Your task to perform on an android device: turn on wifi Image 0: 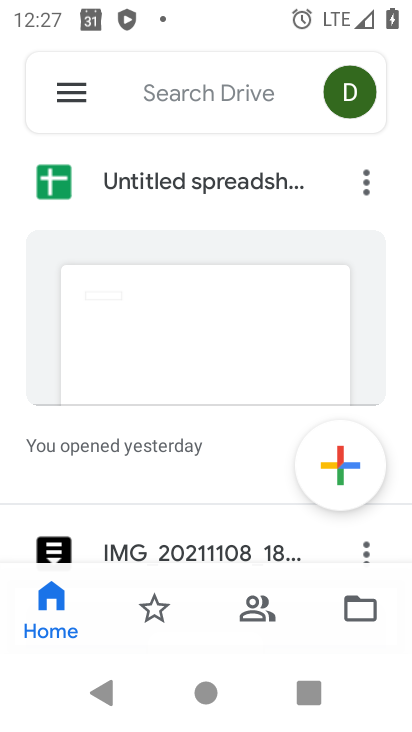
Step 0: drag from (104, 8) to (139, 517)
Your task to perform on an android device: turn on wifi Image 1: 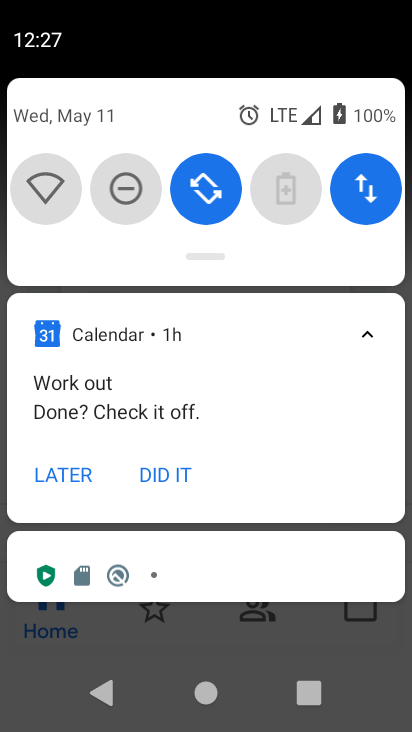
Step 1: click (45, 180)
Your task to perform on an android device: turn on wifi Image 2: 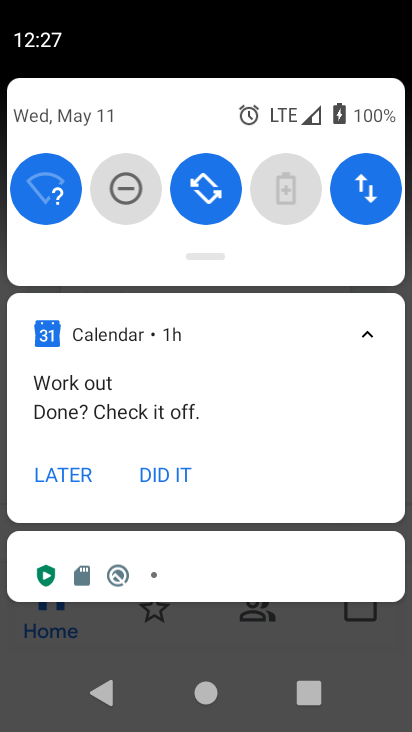
Step 2: task complete